Your task to perform on an android device: change text size in settings app Image 0: 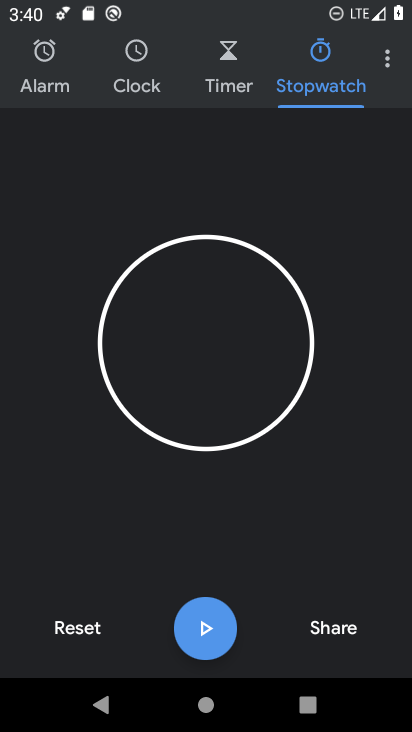
Step 0: press home button
Your task to perform on an android device: change text size in settings app Image 1: 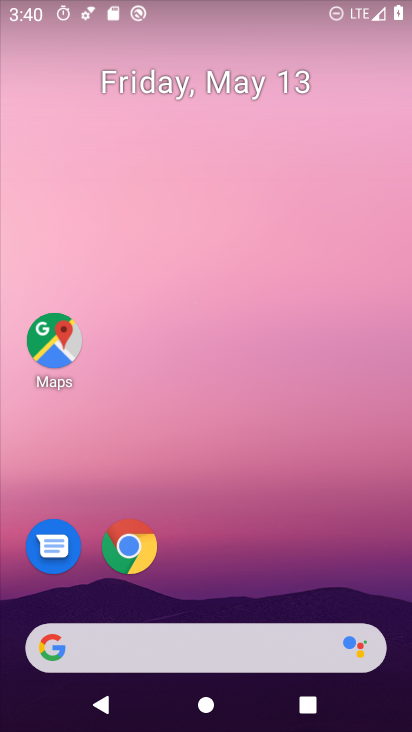
Step 1: drag from (150, 567) to (219, 220)
Your task to perform on an android device: change text size in settings app Image 2: 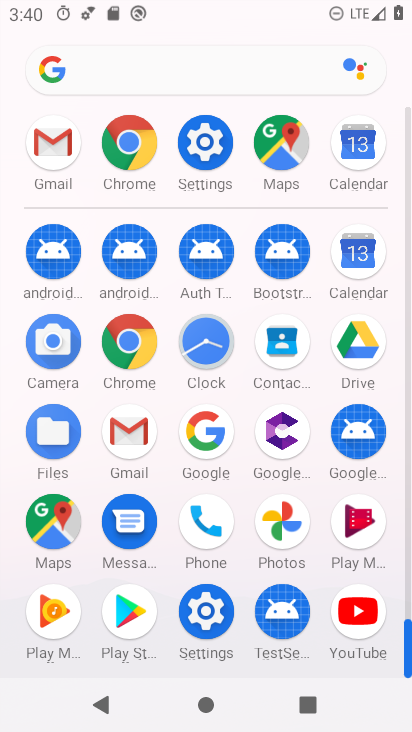
Step 2: click (217, 164)
Your task to perform on an android device: change text size in settings app Image 3: 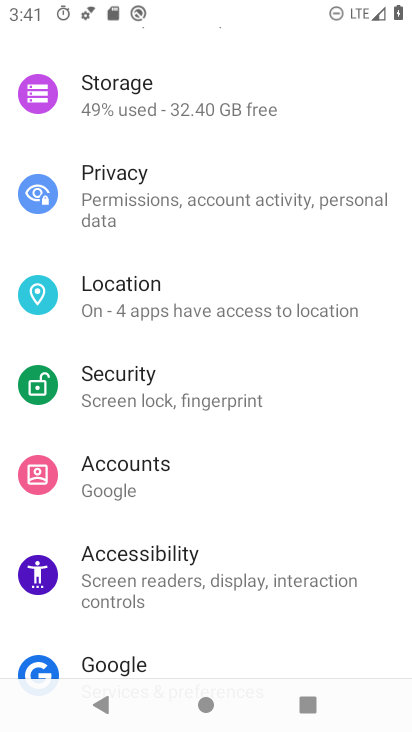
Step 3: drag from (249, 172) to (192, 635)
Your task to perform on an android device: change text size in settings app Image 4: 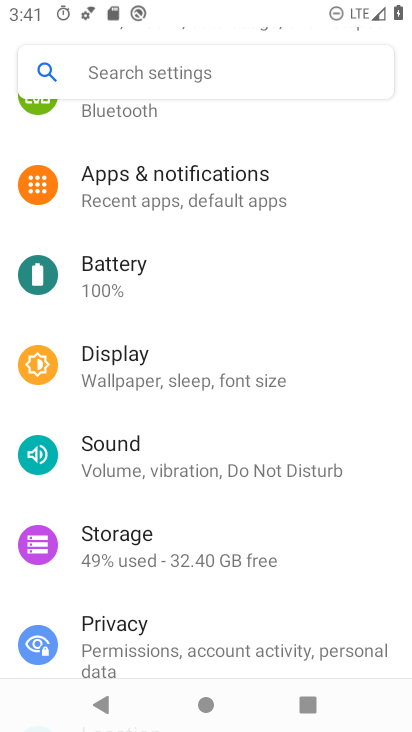
Step 4: drag from (171, 359) to (143, 686)
Your task to perform on an android device: change text size in settings app Image 5: 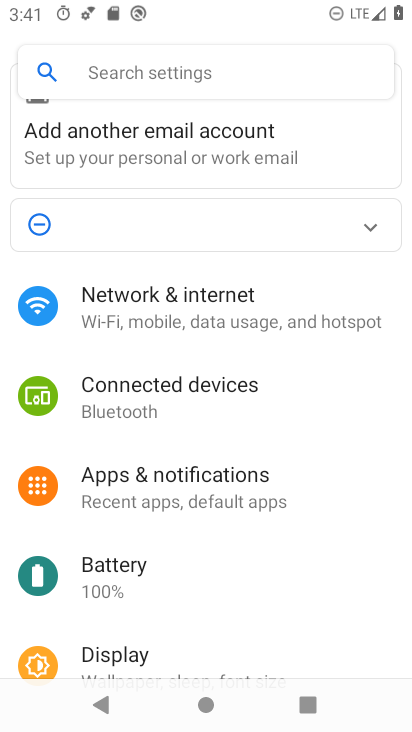
Step 5: click (107, 664)
Your task to perform on an android device: change text size in settings app Image 6: 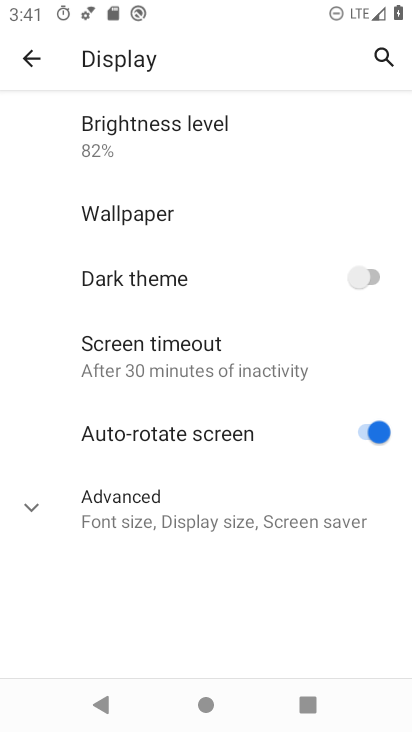
Step 6: click (140, 517)
Your task to perform on an android device: change text size in settings app Image 7: 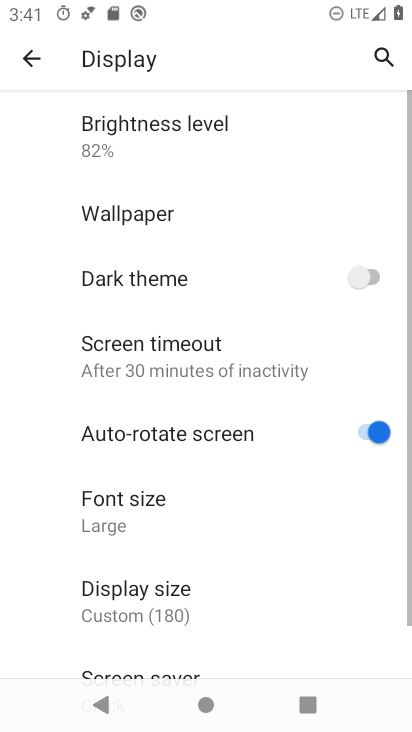
Step 7: click (152, 527)
Your task to perform on an android device: change text size in settings app Image 8: 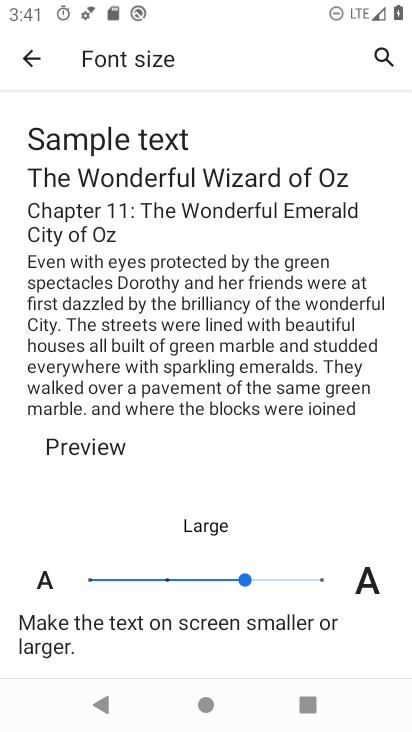
Step 8: click (191, 584)
Your task to perform on an android device: change text size in settings app Image 9: 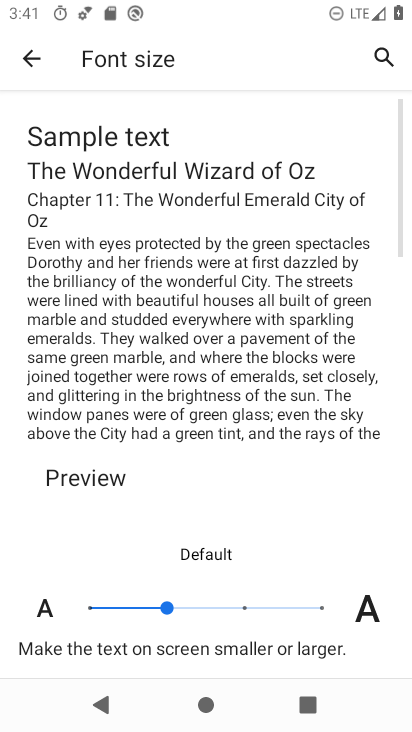
Step 9: task complete